Your task to perform on an android device: change the clock display to analog Image 0: 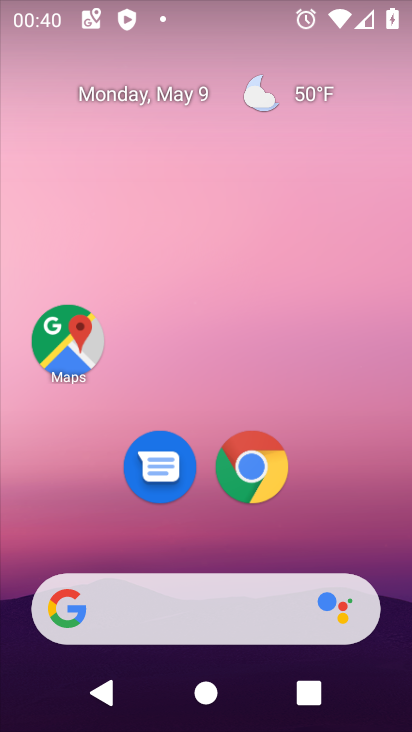
Step 0: drag from (205, 545) to (238, 7)
Your task to perform on an android device: change the clock display to analog Image 1: 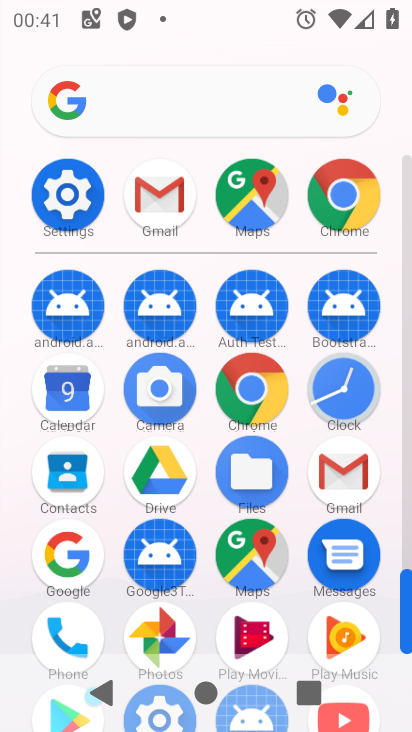
Step 1: click (343, 382)
Your task to perform on an android device: change the clock display to analog Image 2: 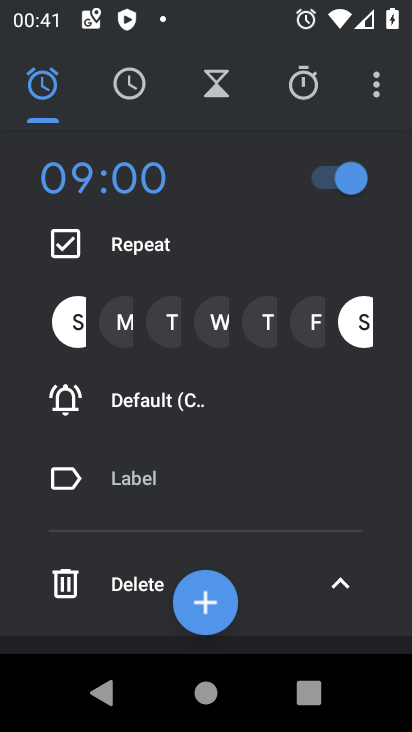
Step 2: click (378, 86)
Your task to perform on an android device: change the clock display to analog Image 3: 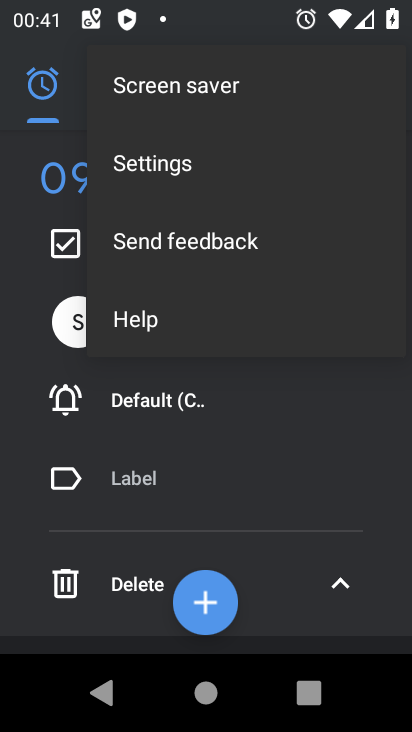
Step 3: click (209, 162)
Your task to perform on an android device: change the clock display to analog Image 4: 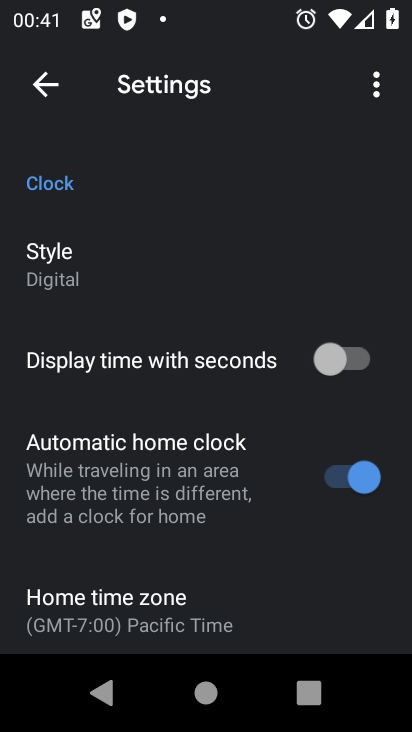
Step 4: click (100, 265)
Your task to perform on an android device: change the clock display to analog Image 5: 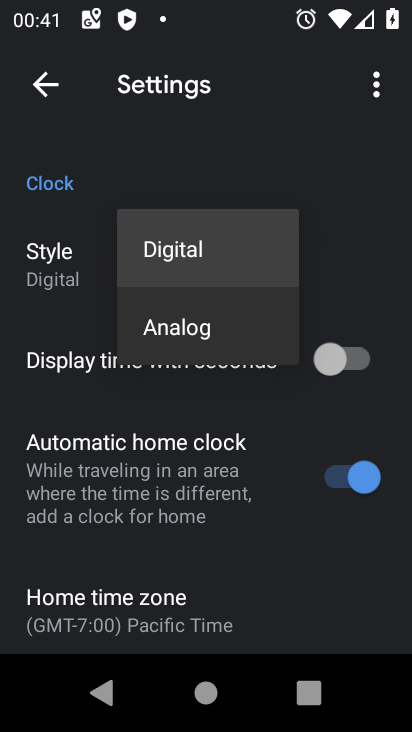
Step 5: click (188, 329)
Your task to perform on an android device: change the clock display to analog Image 6: 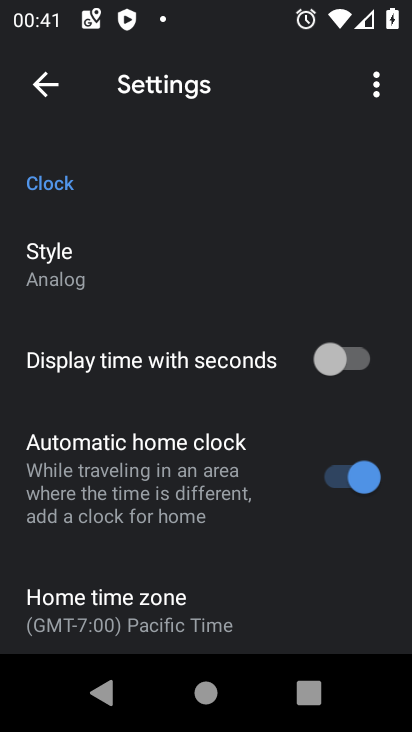
Step 6: task complete